Your task to perform on an android device: open a new tab in the chrome app Image 0: 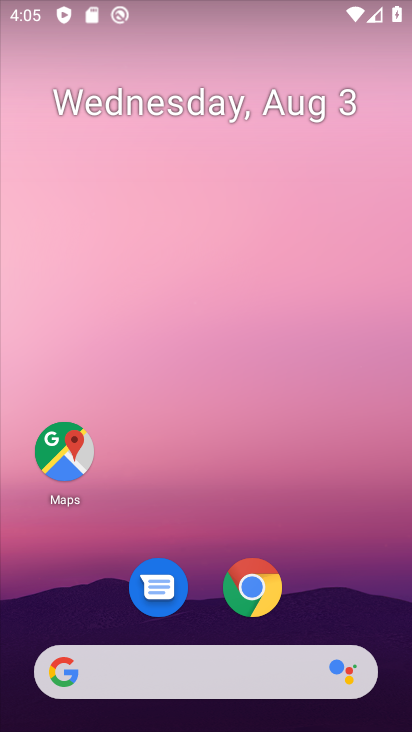
Step 0: click (245, 593)
Your task to perform on an android device: open a new tab in the chrome app Image 1: 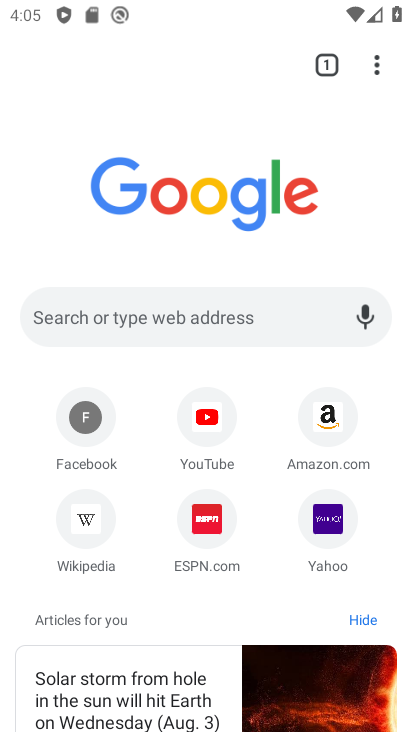
Step 1: click (369, 54)
Your task to perform on an android device: open a new tab in the chrome app Image 2: 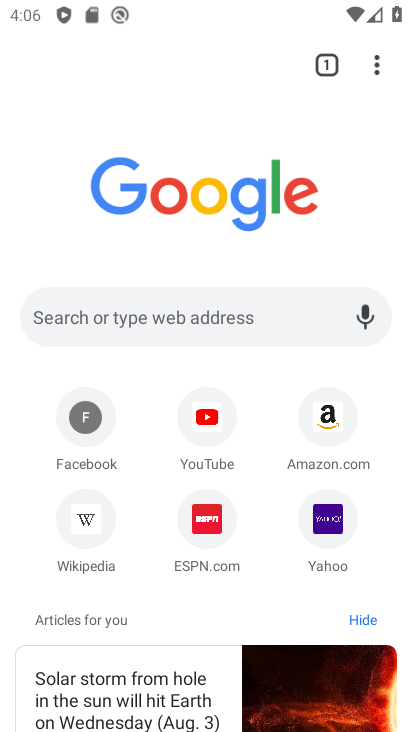
Step 2: click (374, 63)
Your task to perform on an android device: open a new tab in the chrome app Image 3: 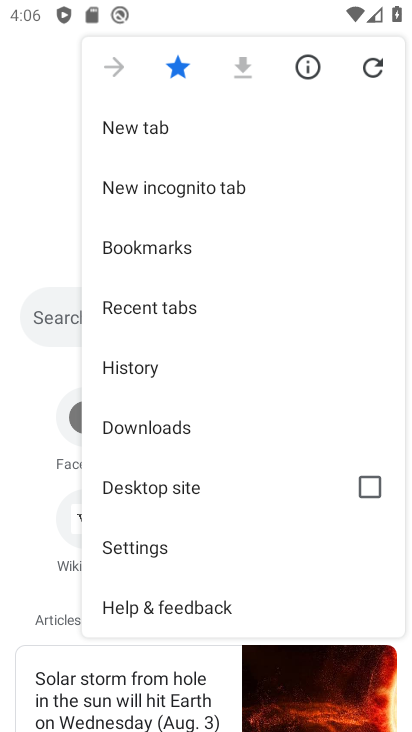
Step 3: click (153, 132)
Your task to perform on an android device: open a new tab in the chrome app Image 4: 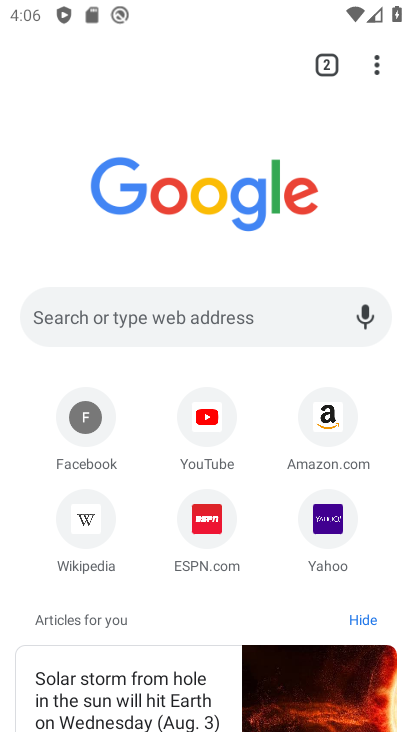
Step 4: task complete